Your task to perform on an android device: Set the phone to "Do not disturb". Image 0: 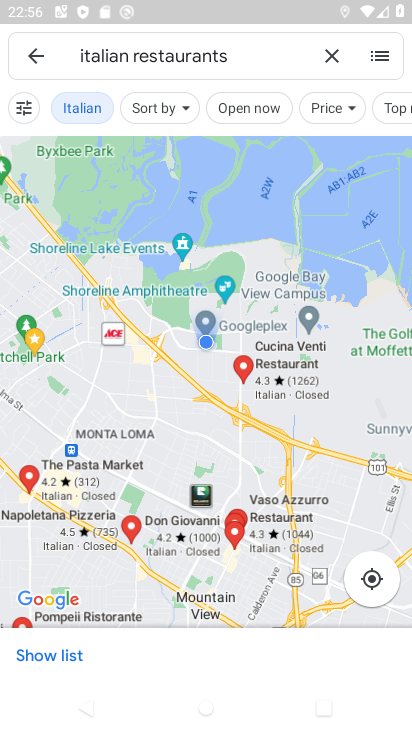
Step 0: press home button
Your task to perform on an android device: Set the phone to "Do not disturb". Image 1: 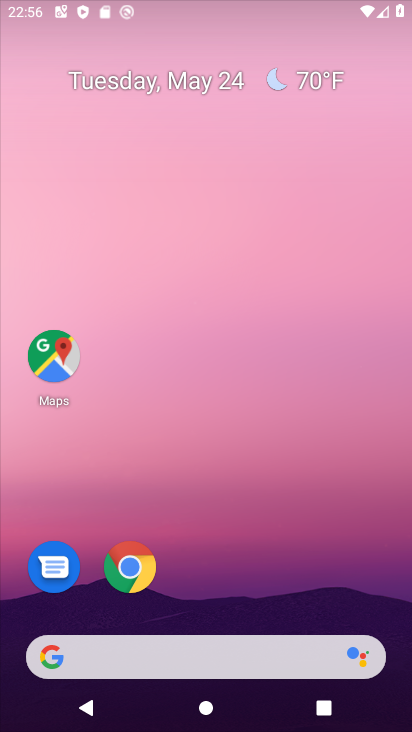
Step 1: drag from (313, 491) to (204, 50)
Your task to perform on an android device: Set the phone to "Do not disturb". Image 2: 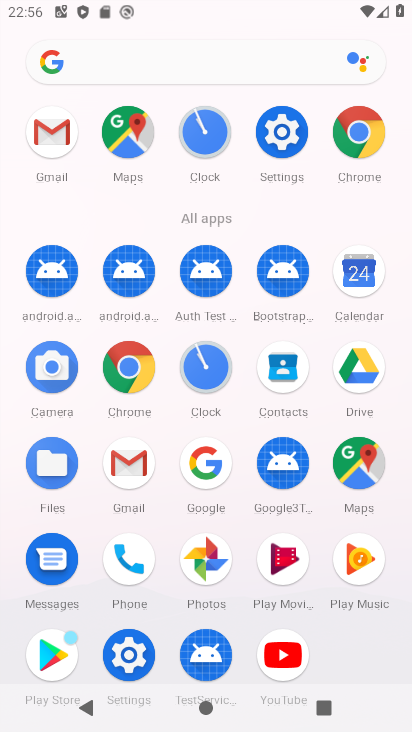
Step 2: click (296, 125)
Your task to perform on an android device: Set the phone to "Do not disturb". Image 3: 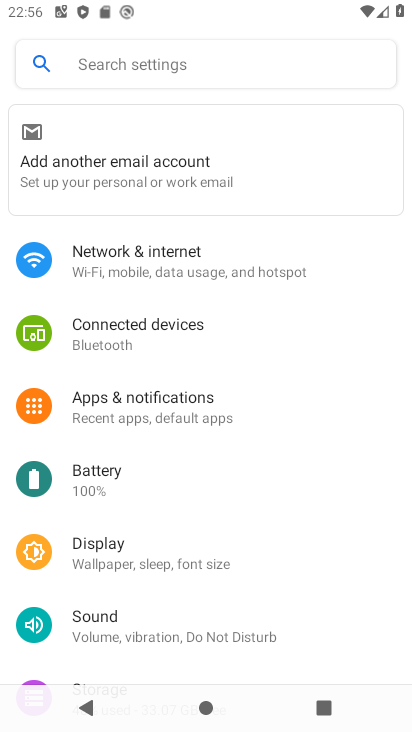
Step 3: drag from (188, 560) to (204, 185)
Your task to perform on an android device: Set the phone to "Do not disturb". Image 4: 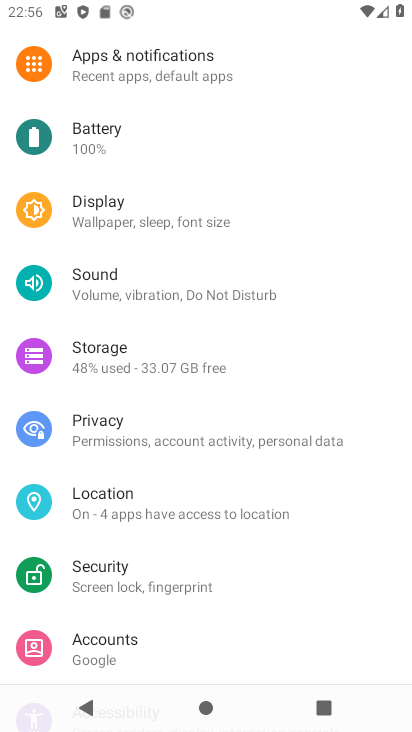
Step 4: click (136, 297)
Your task to perform on an android device: Set the phone to "Do not disturb". Image 5: 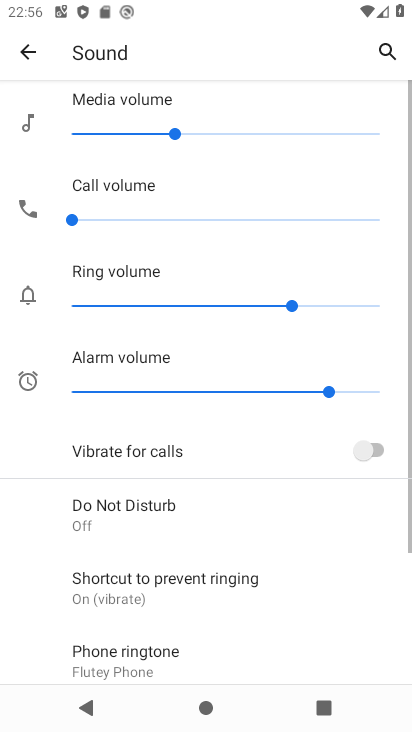
Step 5: drag from (277, 572) to (297, 329)
Your task to perform on an android device: Set the phone to "Do not disturb". Image 6: 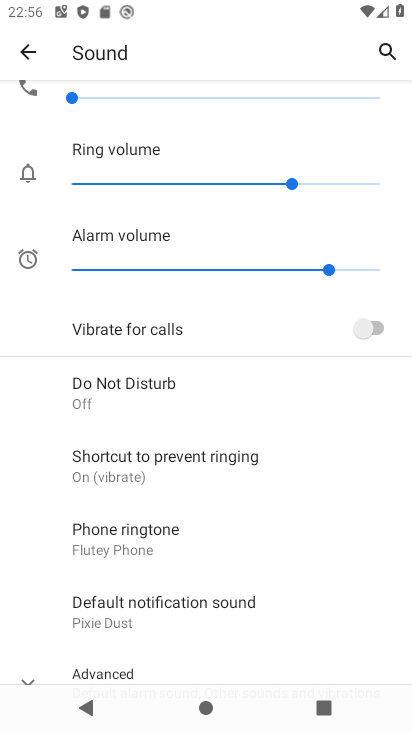
Step 6: click (174, 385)
Your task to perform on an android device: Set the phone to "Do not disturb". Image 7: 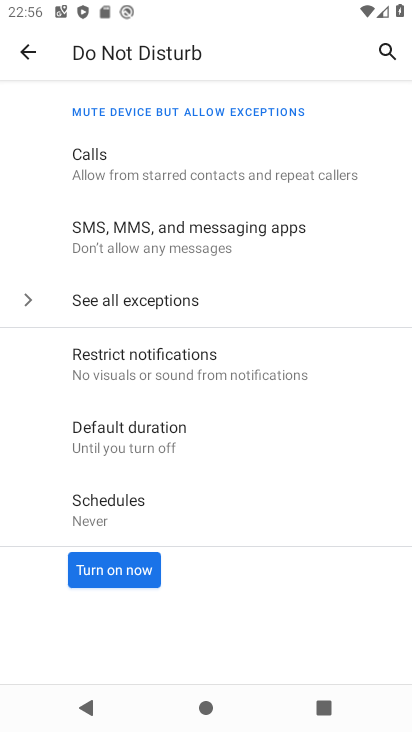
Step 7: click (120, 552)
Your task to perform on an android device: Set the phone to "Do not disturb". Image 8: 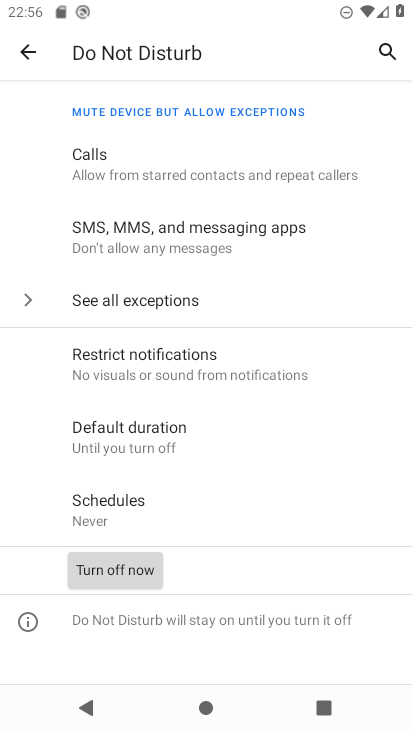
Step 8: task complete